Your task to perform on an android device: Go to Android settings Image 0: 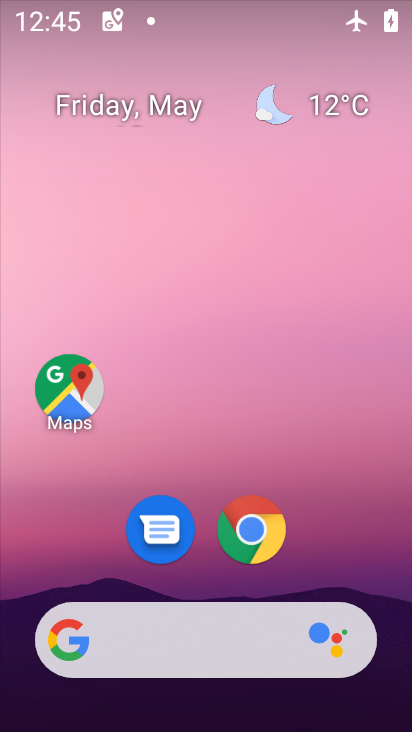
Step 0: drag from (304, 489) to (294, 159)
Your task to perform on an android device: Go to Android settings Image 1: 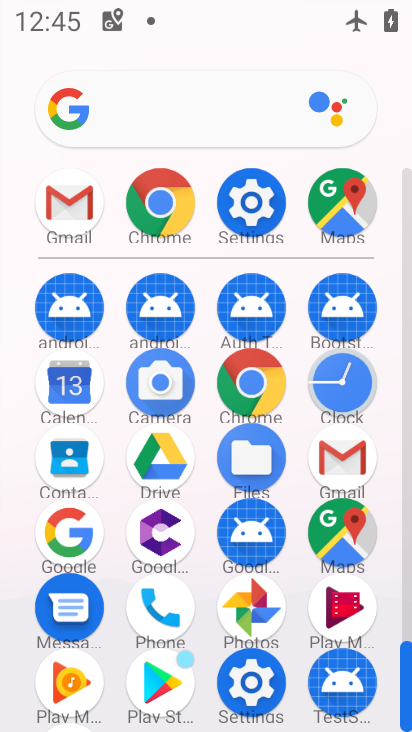
Step 1: click (246, 210)
Your task to perform on an android device: Go to Android settings Image 2: 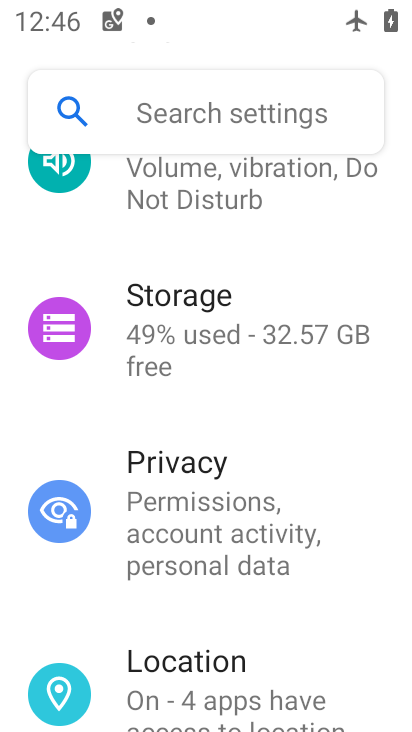
Step 2: drag from (175, 701) to (189, 288)
Your task to perform on an android device: Go to Android settings Image 3: 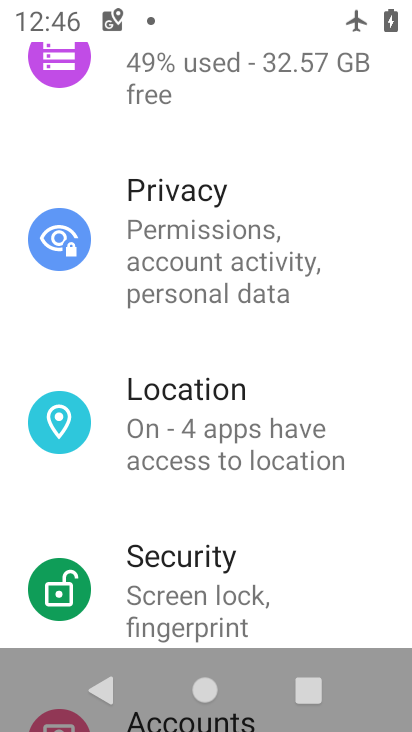
Step 3: drag from (295, 214) to (294, 146)
Your task to perform on an android device: Go to Android settings Image 4: 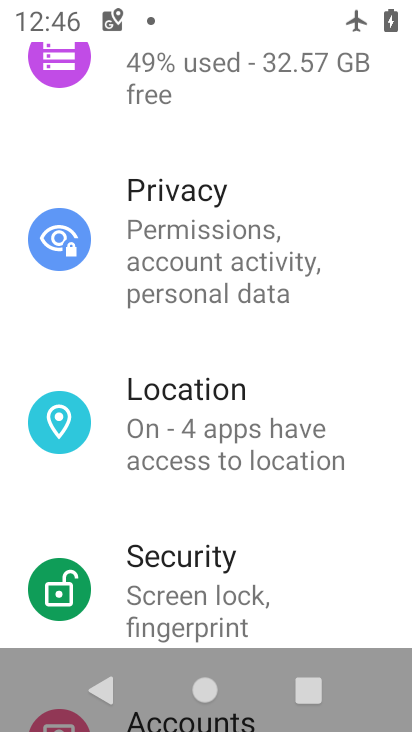
Step 4: drag from (259, 372) to (302, 172)
Your task to perform on an android device: Go to Android settings Image 5: 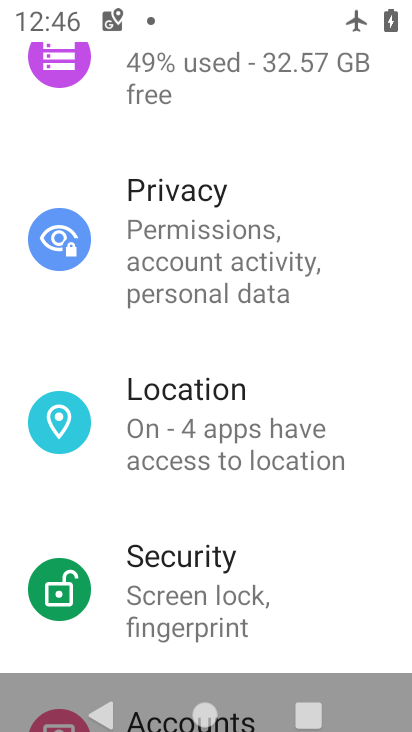
Step 5: drag from (328, 278) to (335, 102)
Your task to perform on an android device: Go to Android settings Image 6: 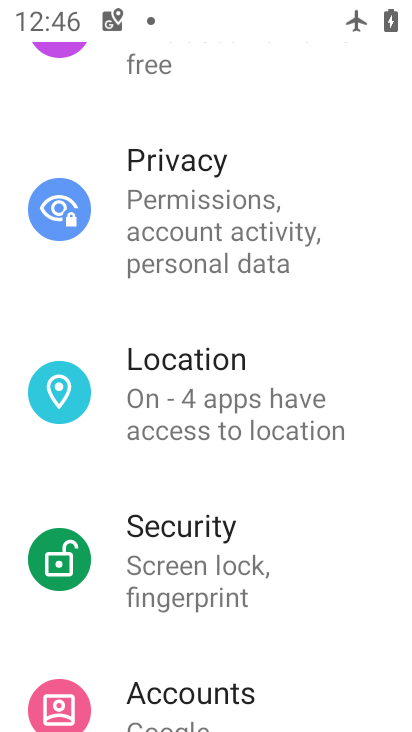
Step 6: drag from (189, 398) to (207, 150)
Your task to perform on an android device: Go to Android settings Image 7: 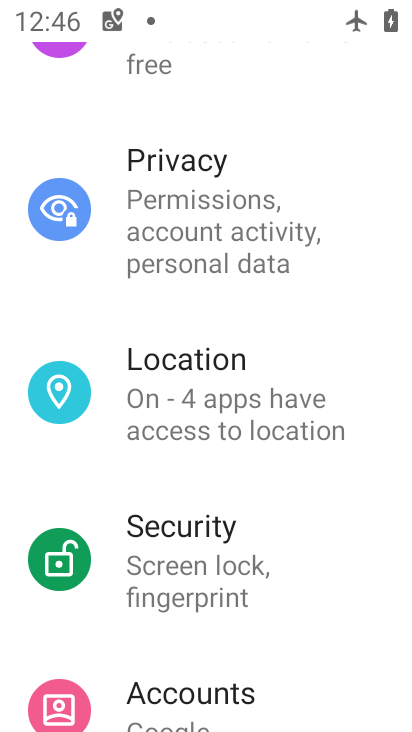
Step 7: drag from (168, 453) to (235, 149)
Your task to perform on an android device: Go to Android settings Image 8: 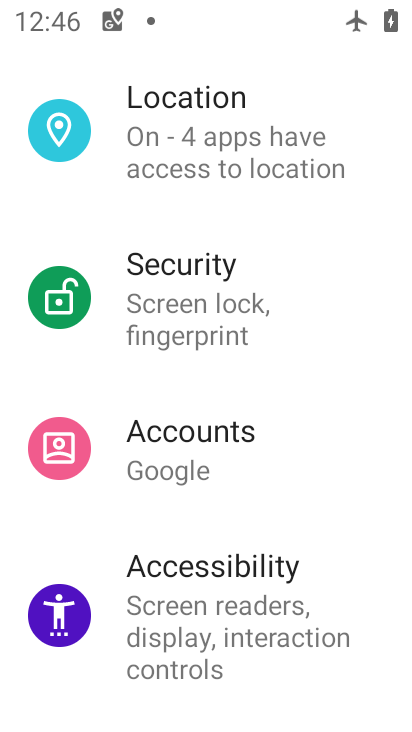
Step 8: drag from (192, 619) to (253, 244)
Your task to perform on an android device: Go to Android settings Image 9: 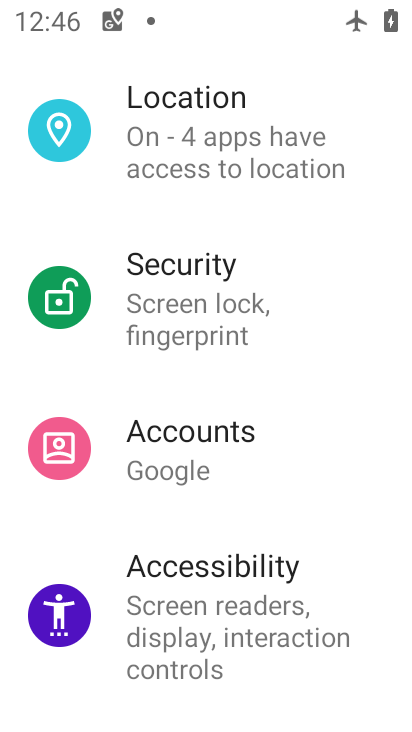
Step 9: drag from (238, 533) to (264, 147)
Your task to perform on an android device: Go to Android settings Image 10: 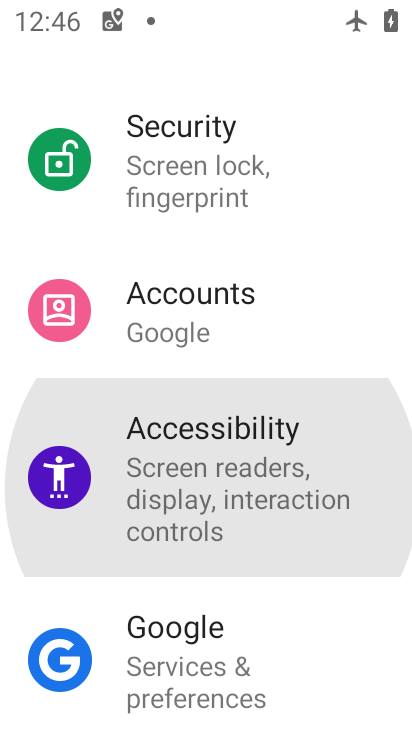
Step 10: drag from (234, 579) to (245, 270)
Your task to perform on an android device: Go to Android settings Image 11: 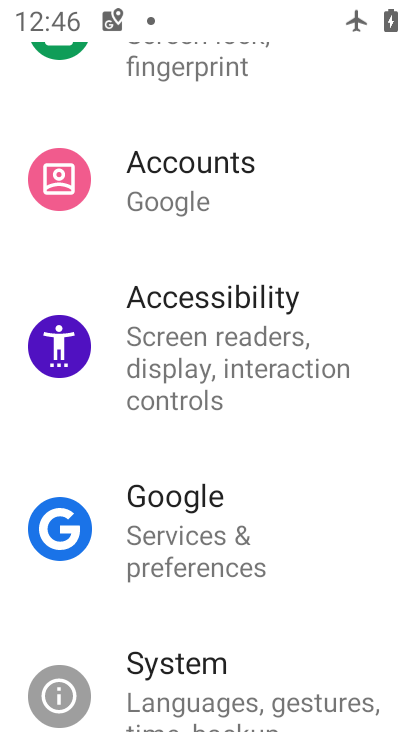
Step 11: drag from (176, 583) to (197, 165)
Your task to perform on an android device: Go to Android settings Image 12: 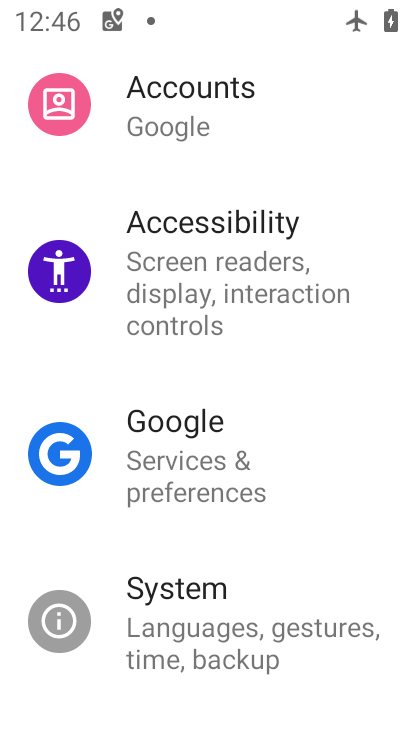
Step 12: drag from (243, 289) to (283, 160)
Your task to perform on an android device: Go to Android settings Image 13: 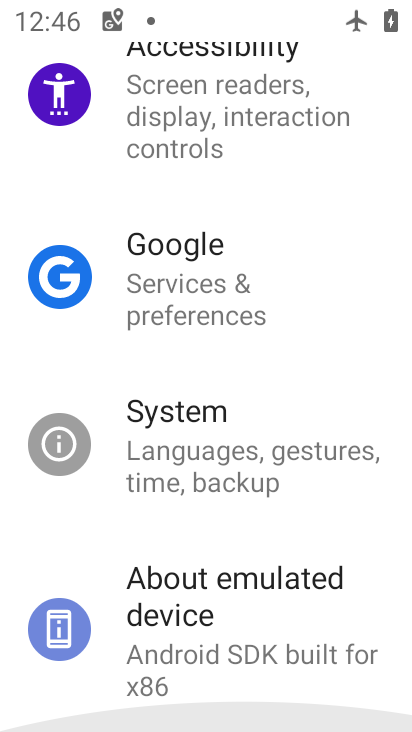
Step 13: drag from (224, 573) to (270, 277)
Your task to perform on an android device: Go to Android settings Image 14: 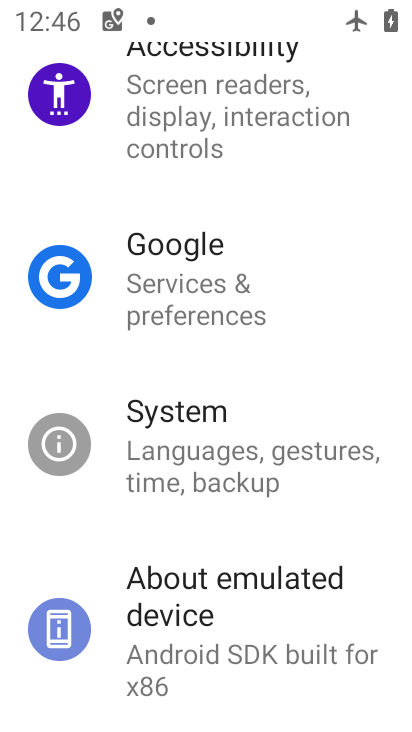
Step 14: click (181, 647)
Your task to perform on an android device: Go to Android settings Image 15: 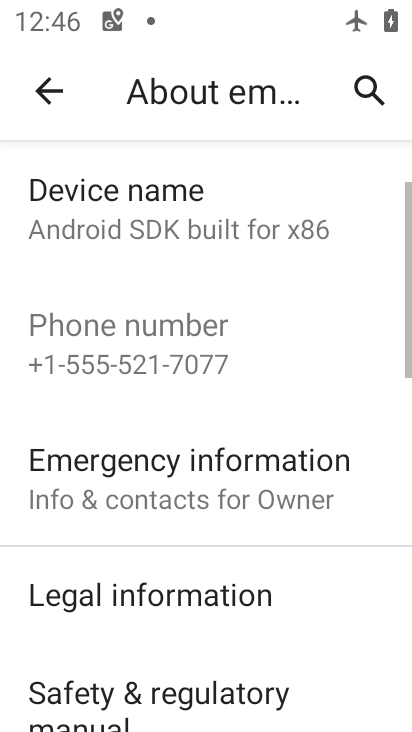
Step 15: click (44, 86)
Your task to perform on an android device: Go to Android settings Image 16: 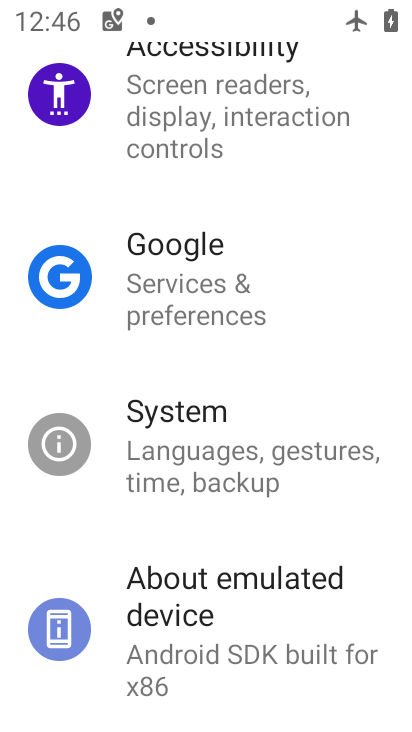
Step 16: task complete